Your task to perform on an android device: all mails in gmail Image 0: 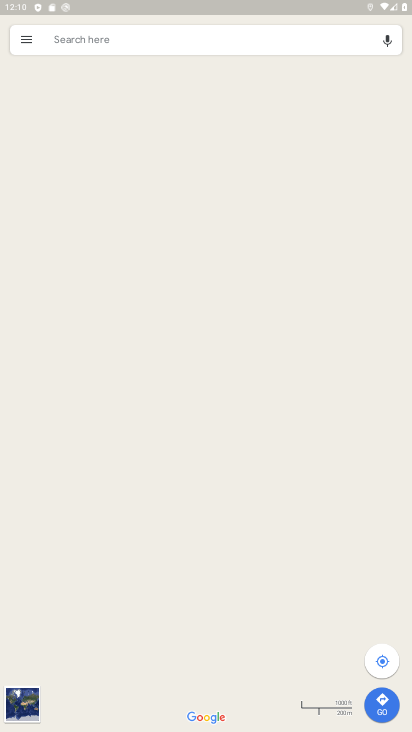
Step 0: press home button
Your task to perform on an android device: all mails in gmail Image 1: 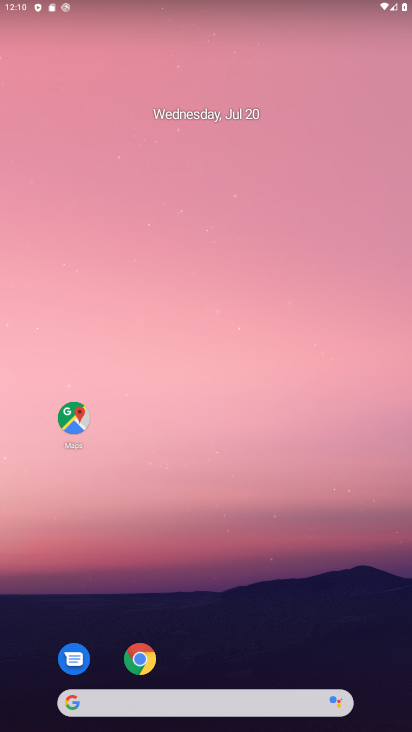
Step 1: drag from (211, 670) to (235, 56)
Your task to perform on an android device: all mails in gmail Image 2: 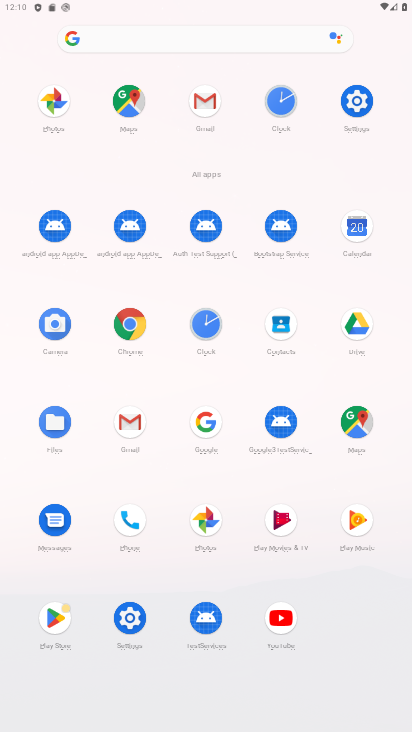
Step 2: click (206, 93)
Your task to perform on an android device: all mails in gmail Image 3: 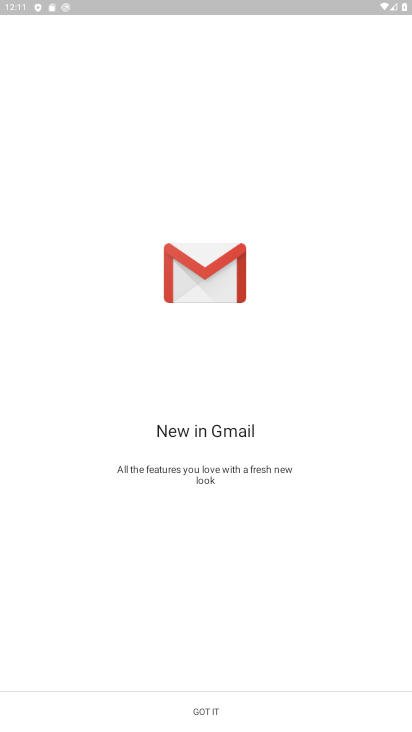
Step 3: click (207, 714)
Your task to perform on an android device: all mails in gmail Image 4: 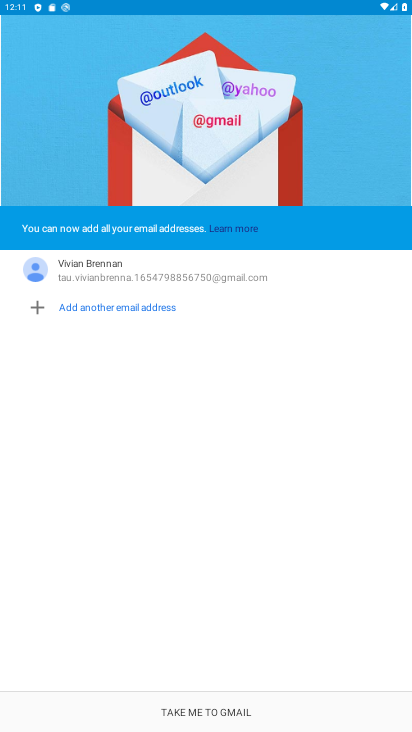
Step 4: click (202, 704)
Your task to perform on an android device: all mails in gmail Image 5: 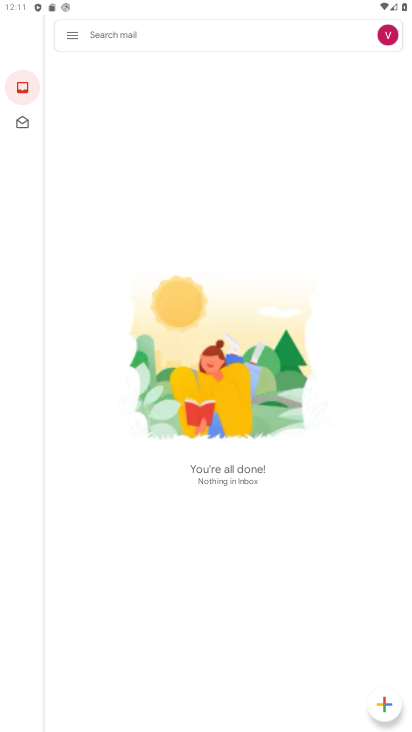
Step 5: click (68, 34)
Your task to perform on an android device: all mails in gmail Image 6: 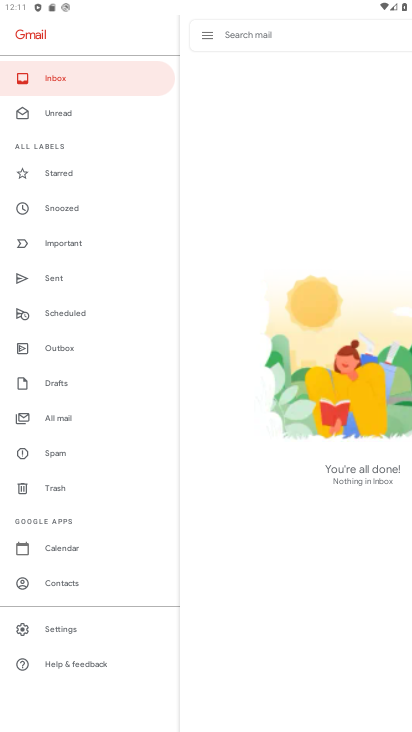
Step 6: click (63, 416)
Your task to perform on an android device: all mails in gmail Image 7: 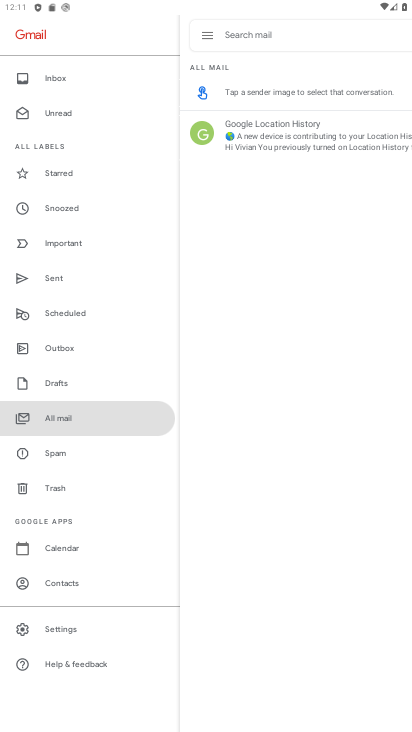
Step 7: task complete